Your task to perform on an android device: delete a single message in the gmail app Image 0: 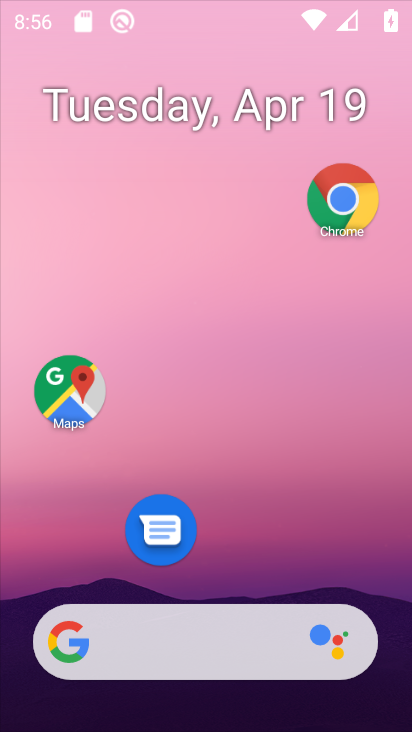
Step 0: drag from (215, 5) to (164, 5)
Your task to perform on an android device: delete a single message in the gmail app Image 1: 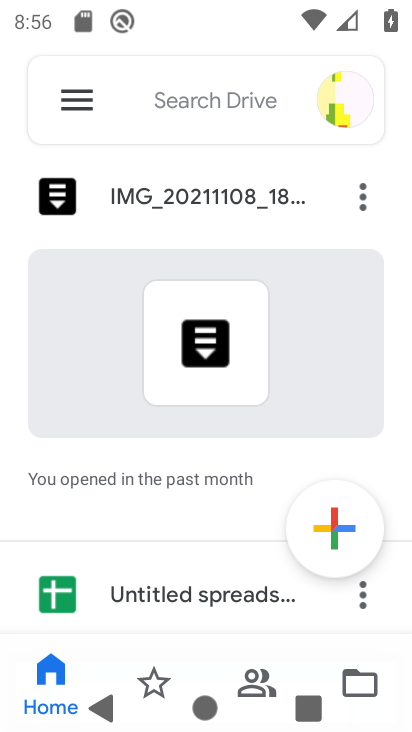
Step 1: drag from (216, 612) to (302, 87)
Your task to perform on an android device: delete a single message in the gmail app Image 2: 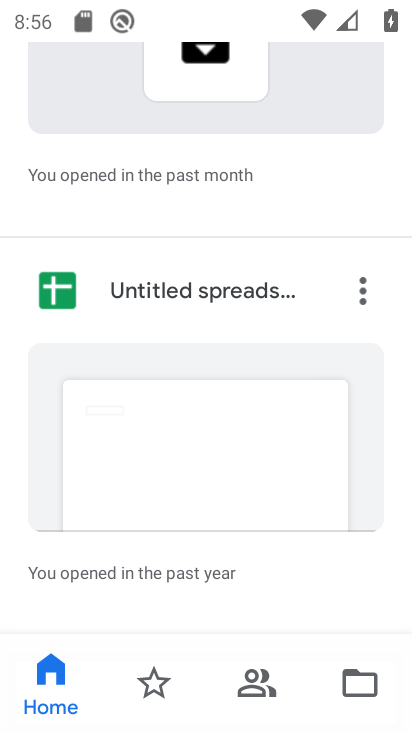
Step 2: drag from (211, 173) to (290, 618)
Your task to perform on an android device: delete a single message in the gmail app Image 3: 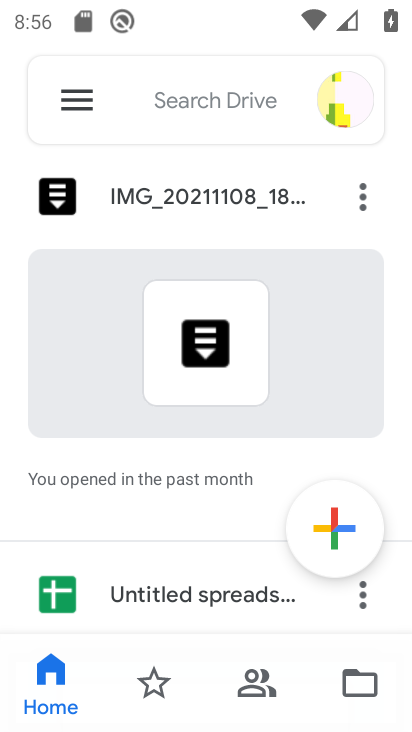
Step 3: click (161, 111)
Your task to perform on an android device: delete a single message in the gmail app Image 4: 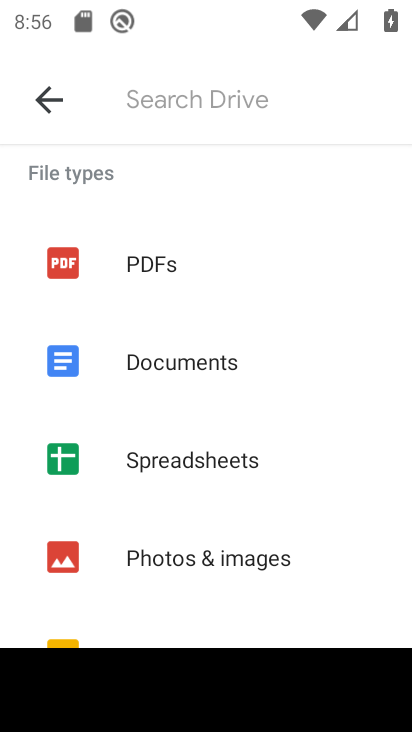
Step 4: click (48, 89)
Your task to perform on an android device: delete a single message in the gmail app Image 5: 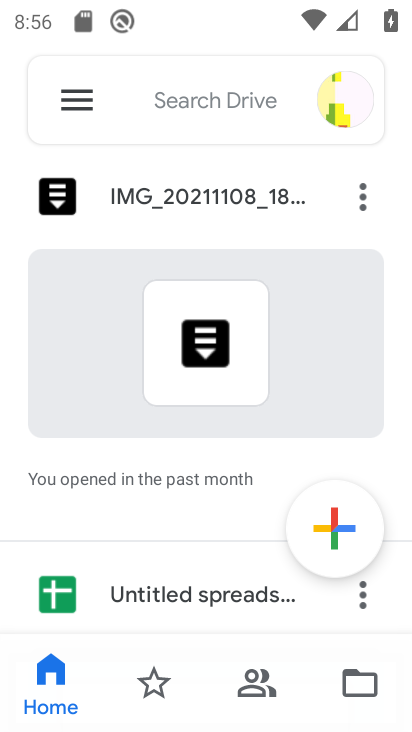
Step 5: press home button
Your task to perform on an android device: delete a single message in the gmail app Image 6: 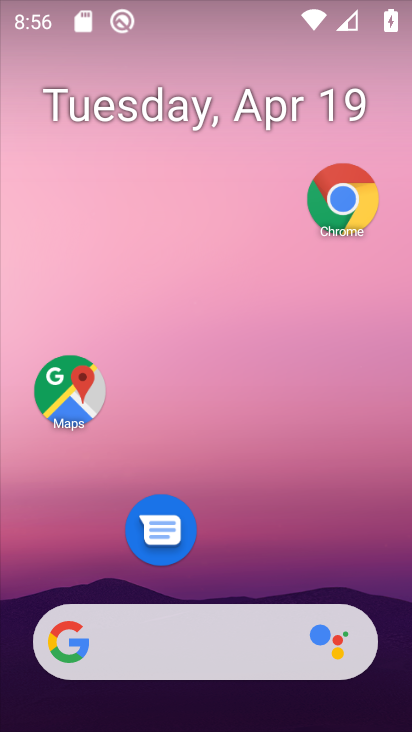
Step 6: drag from (207, 568) to (299, 11)
Your task to perform on an android device: delete a single message in the gmail app Image 7: 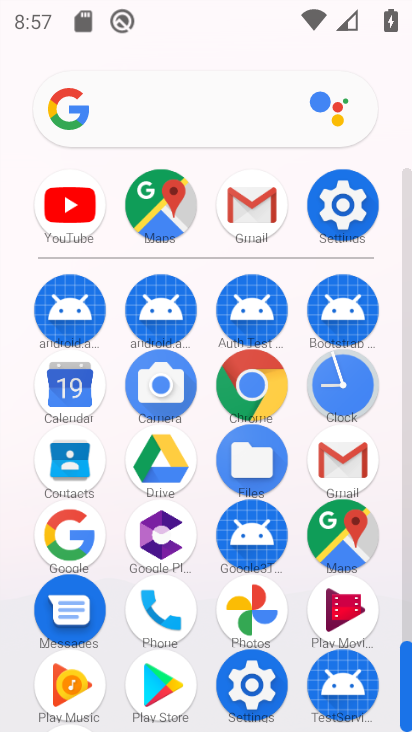
Step 7: click (341, 456)
Your task to perform on an android device: delete a single message in the gmail app Image 8: 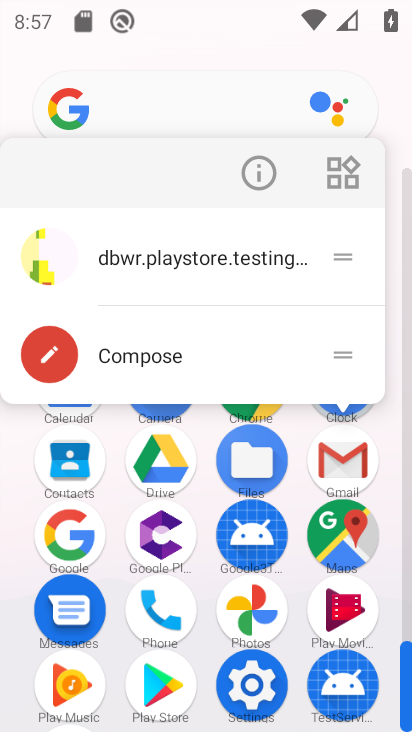
Step 8: click (251, 172)
Your task to perform on an android device: delete a single message in the gmail app Image 9: 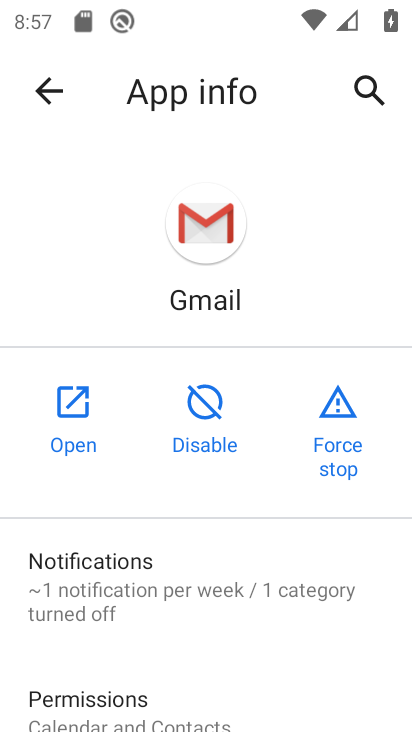
Step 9: click (70, 408)
Your task to perform on an android device: delete a single message in the gmail app Image 10: 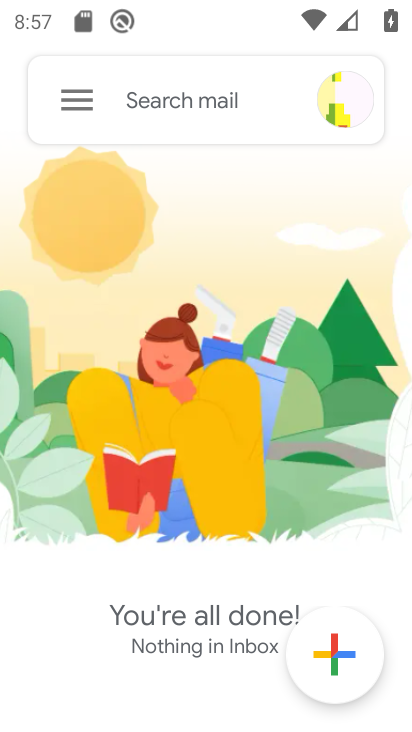
Step 10: task complete